Your task to perform on an android device: find snoozed emails in the gmail app Image 0: 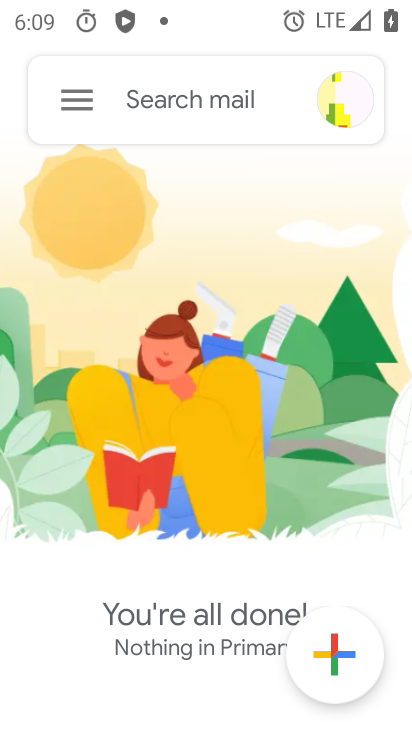
Step 0: click (62, 102)
Your task to perform on an android device: find snoozed emails in the gmail app Image 1: 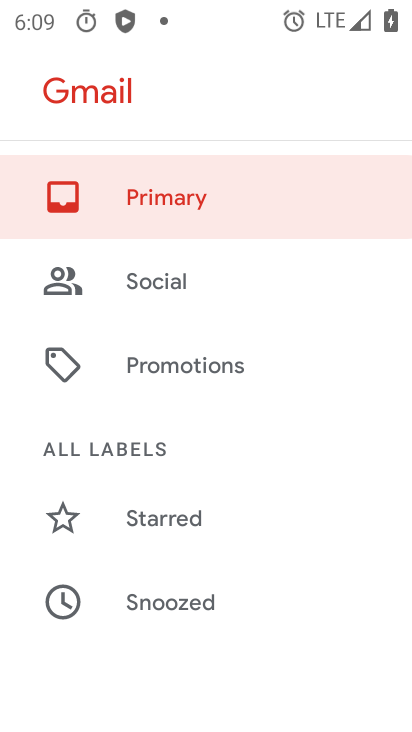
Step 1: drag from (184, 489) to (112, 268)
Your task to perform on an android device: find snoozed emails in the gmail app Image 2: 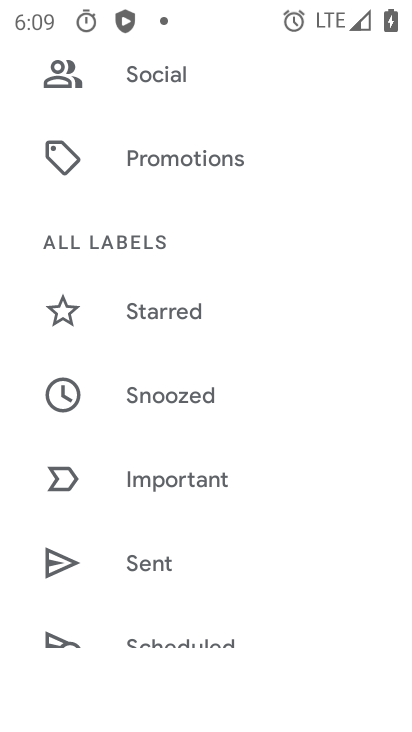
Step 2: drag from (198, 553) to (173, 327)
Your task to perform on an android device: find snoozed emails in the gmail app Image 3: 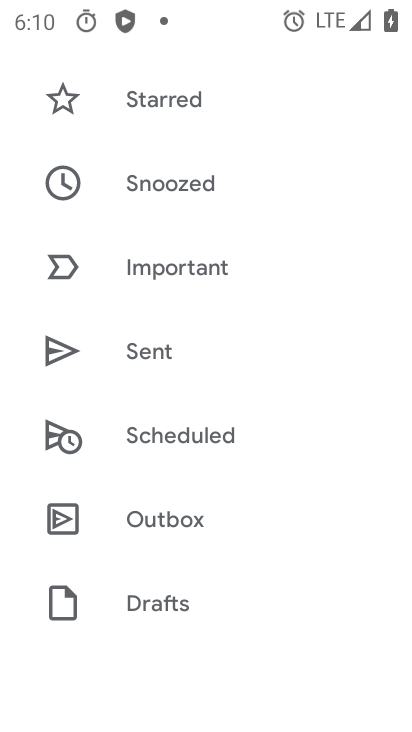
Step 3: click (175, 187)
Your task to perform on an android device: find snoozed emails in the gmail app Image 4: 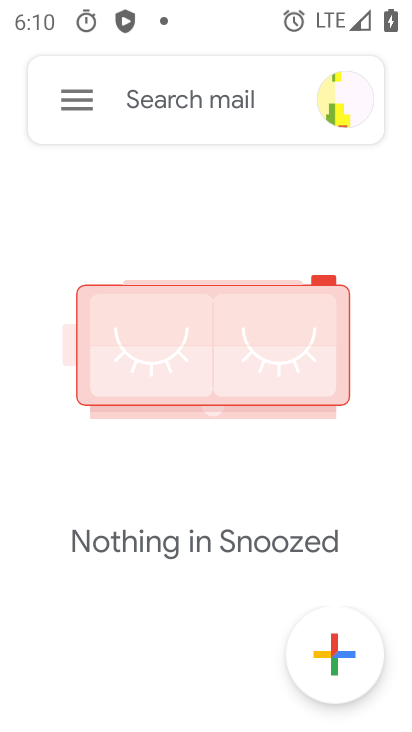
Step 4: task complete